Your task to perform on an android device: Go to display settings Image 0: 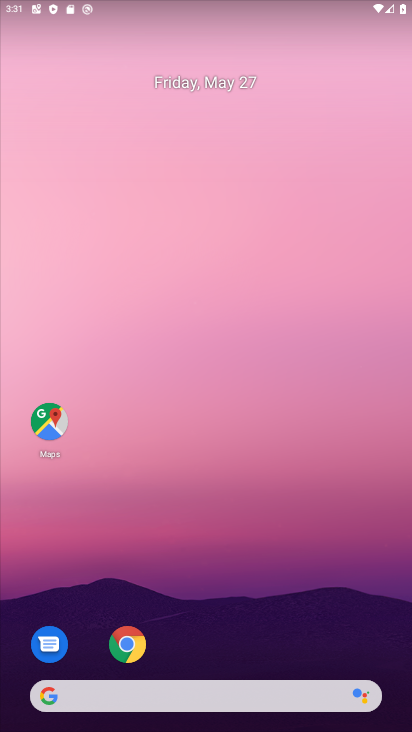
Step 0: press home button
Your task to perform on an android device: Go to display settings Image 1: 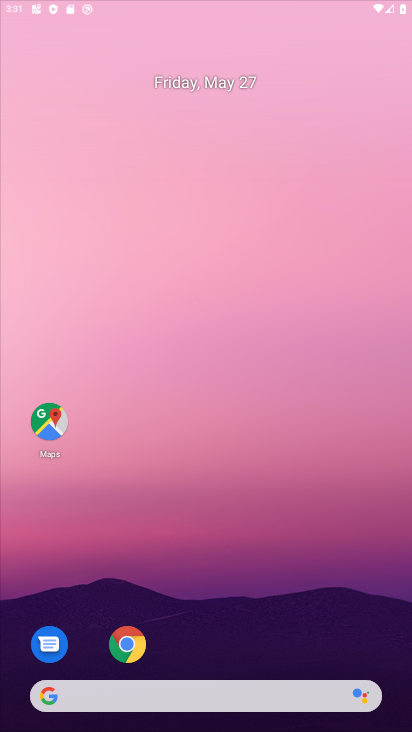
Step 1: drag from (235, 477) to (169, 35)
Your task to perform on an android device: Go to display settings Image 2: 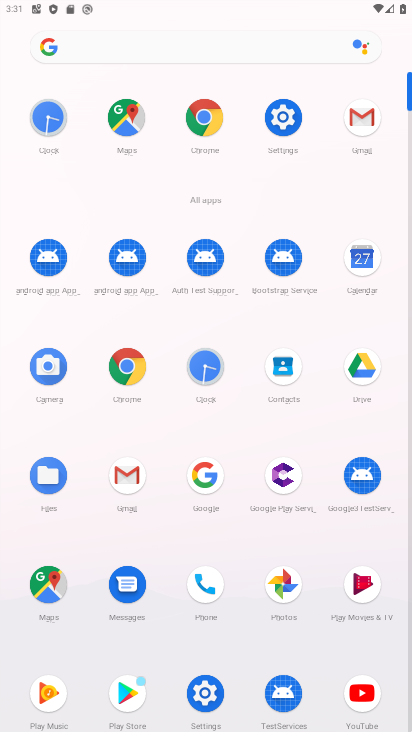
Step 2: click (282, 134)
Your task to perform on an android device: Go to display settings Image 3: 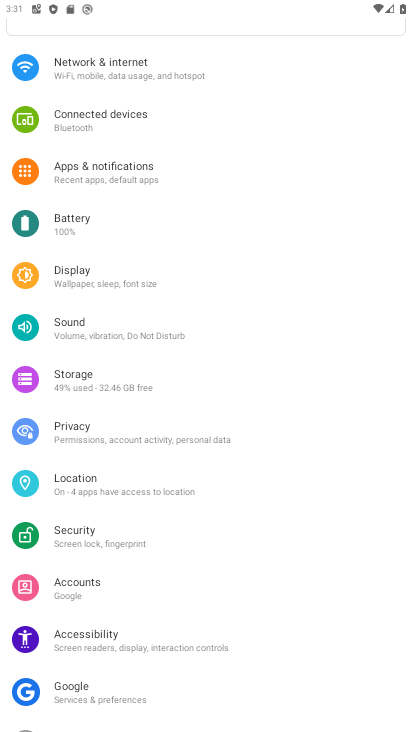
Step 3: click (106, 280)
Your task to perform on an android device: Go to display settings Image 4: 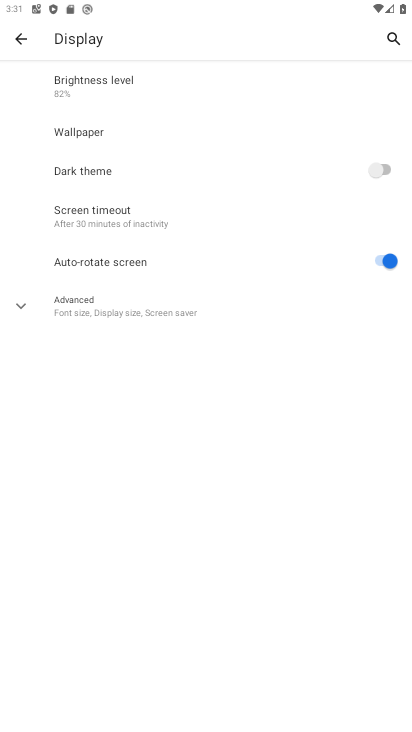
Step 4: task complete